Your task to perform on an android device: open the mobile data screen to see how much data has been used Image 0: 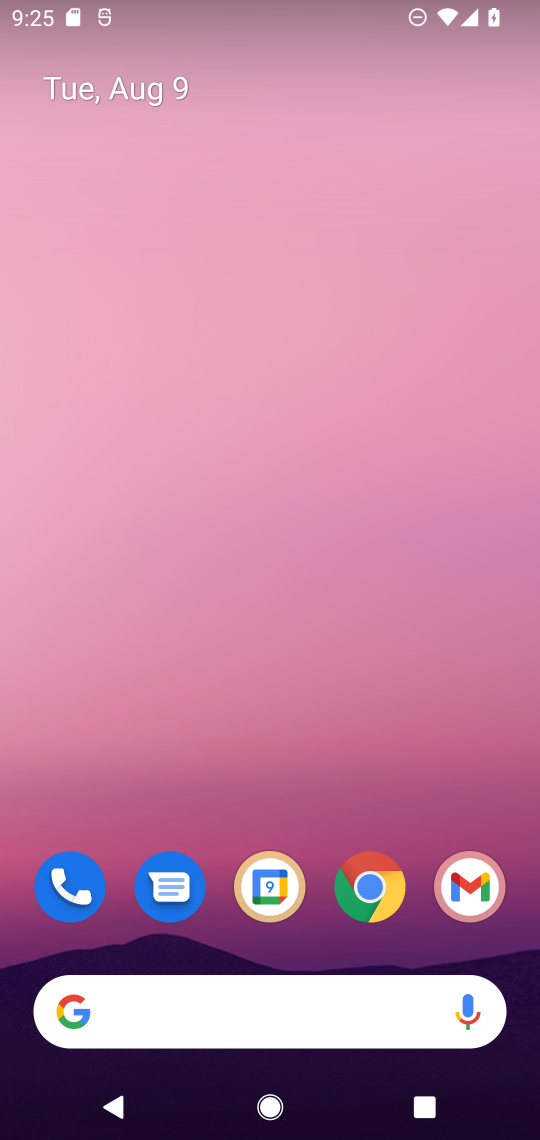
Step 0: drag from (262, 792) to (240, 203)
Your task to perform on an android device: open the mobile data screen to see how much data has been used Image 1: 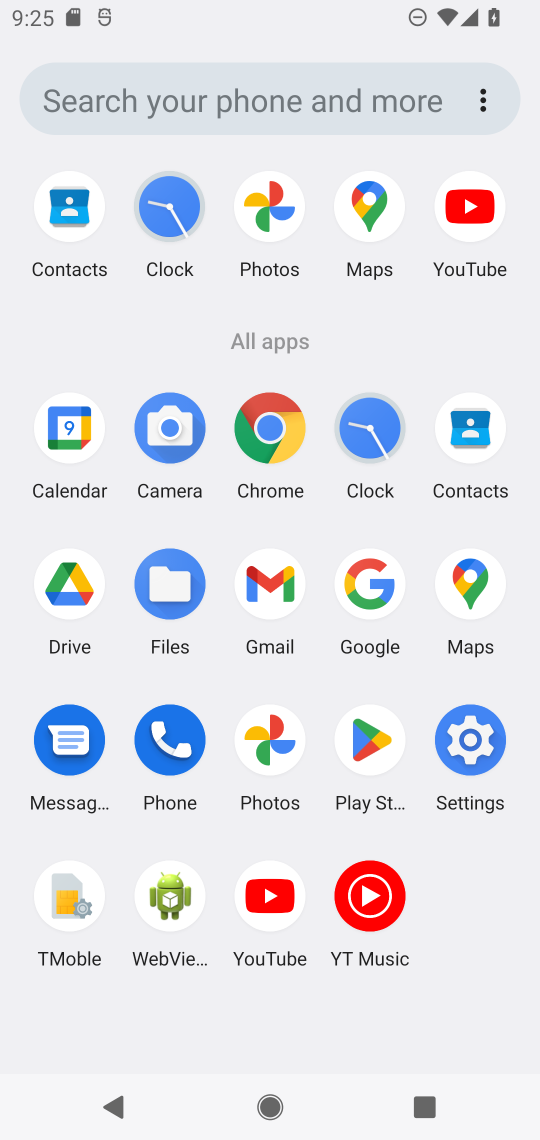
Step 1: click (455, 731)
Your task to perform on an android device: open the mobile data screen to see how much data has been used Image 2: 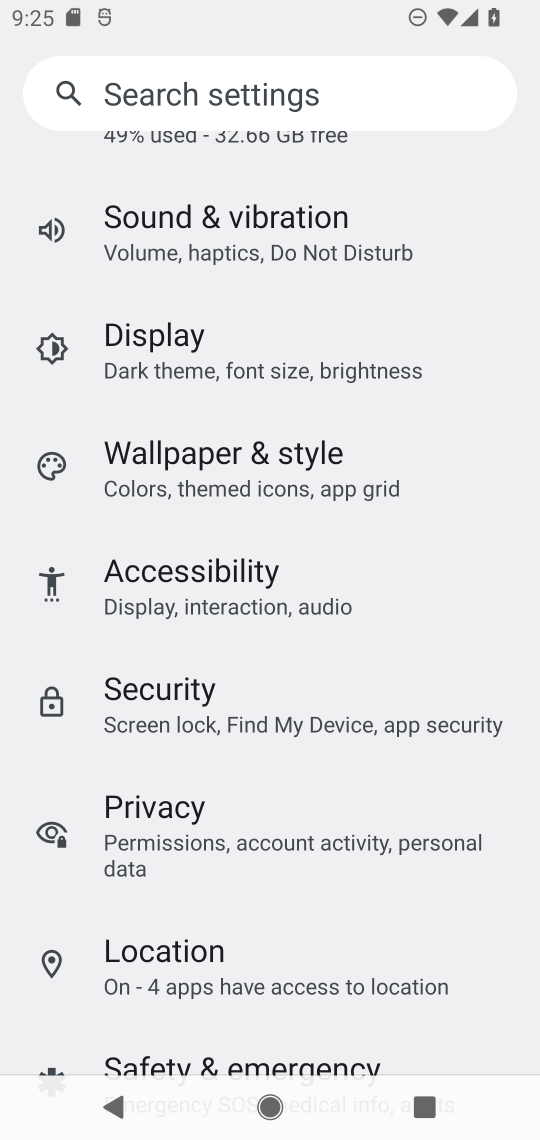
Step 2: drag from (244, 354) to (314, 878)
Your task to perform on an android device: open the mobile data screen to see how much data has been used Image 3: 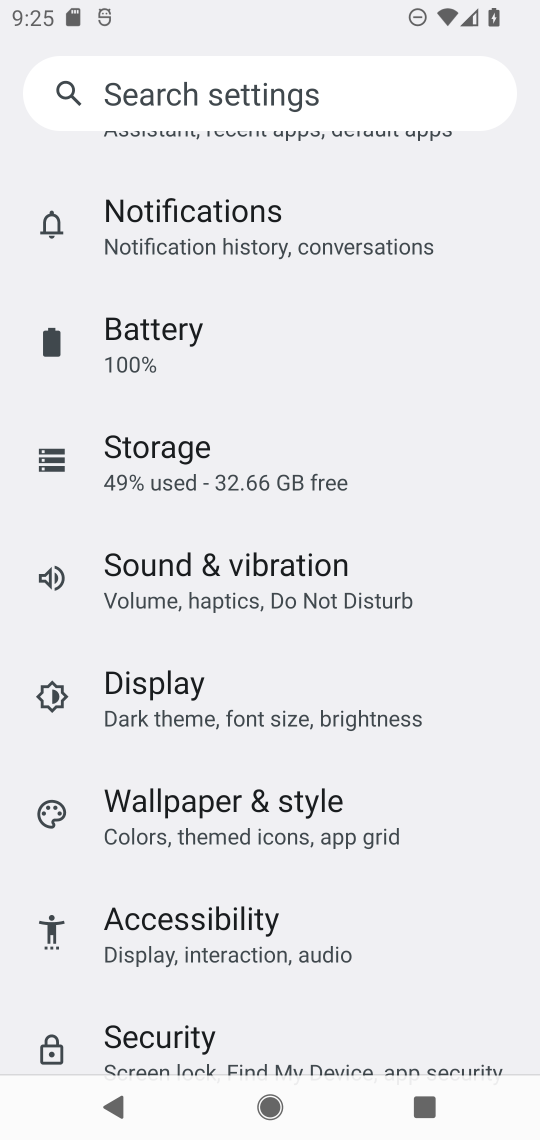
Step 3: drag from (259, 312) to (376, 829)
Your task to perform on an android device: open the mobile data screen to see how much data has been used Image 4: 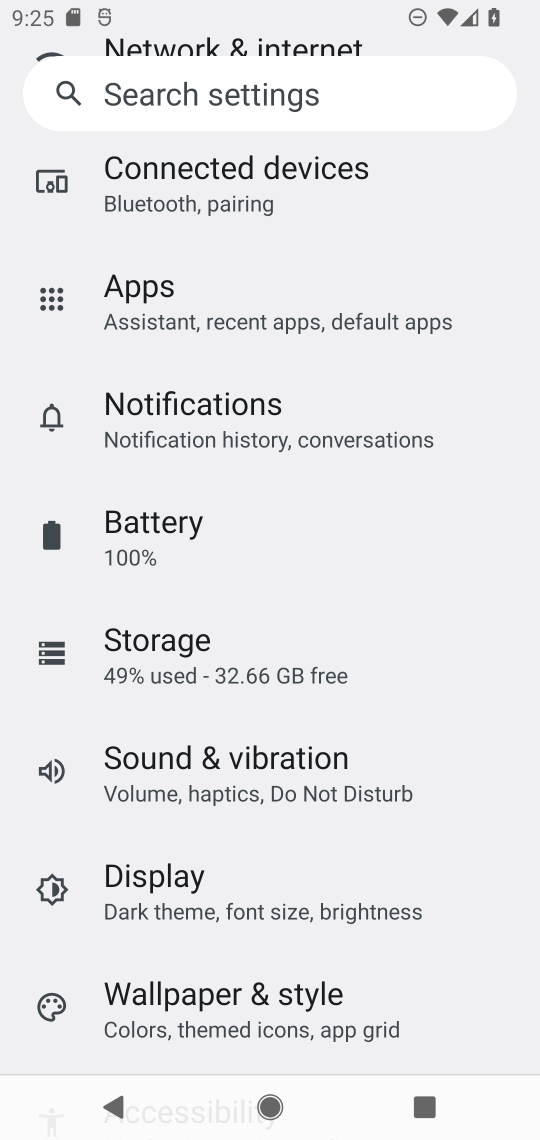
Step 4: drag from (239, 325) to (237, 824)
Your task to perform on an android device: open the mobile data screen to see how much data has been used Image 5: 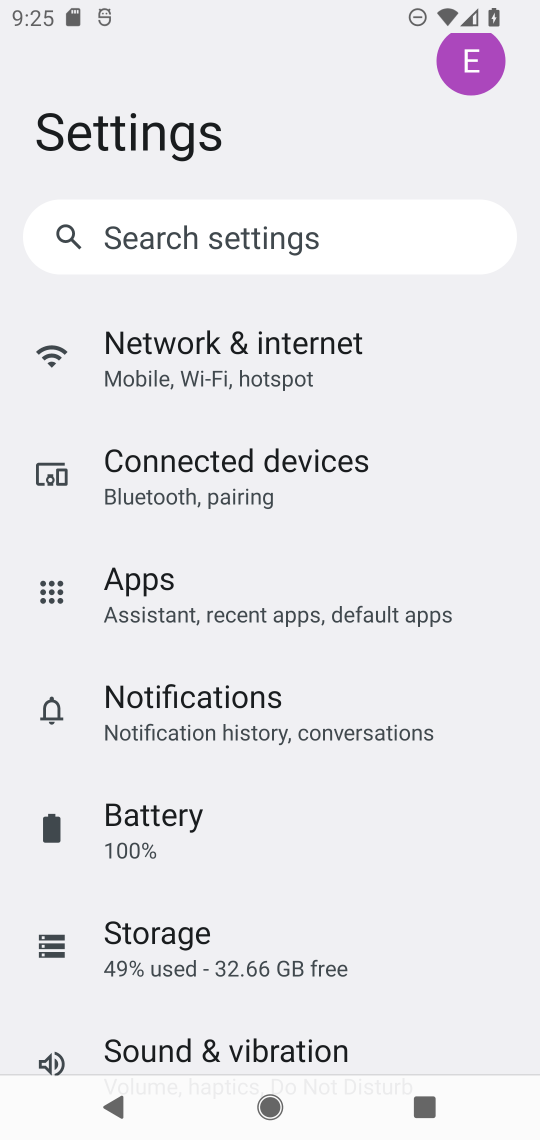
Step 5: click (341, 338)
Your task to perform on an android device: open the mobile data screen to see how much data has been used Image 6: 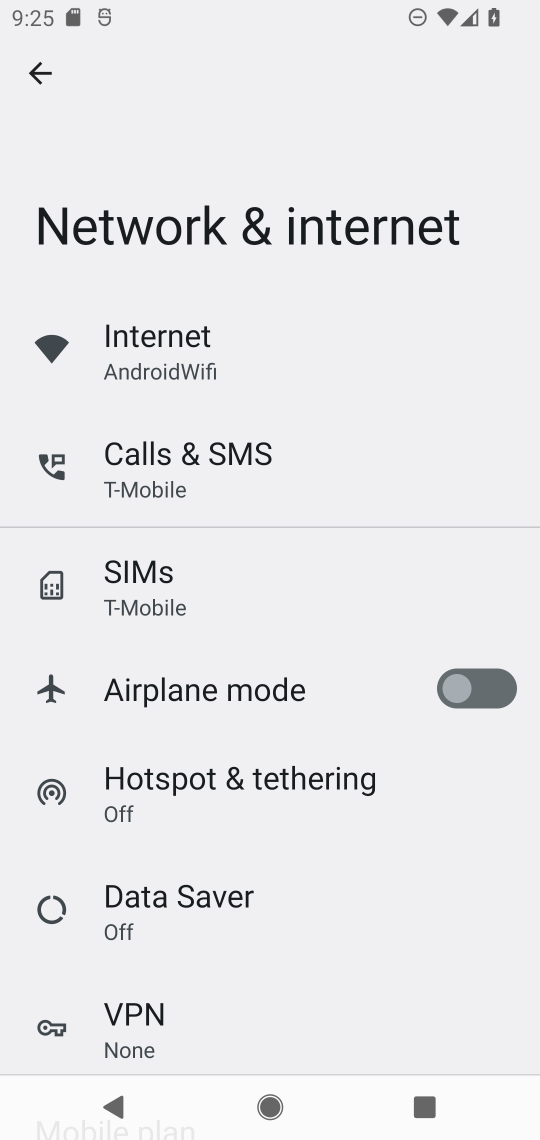
Step 6: click (210, 372)
Your task to perform on an android device: open the mobile data screen to see how much data has been used Image 7: 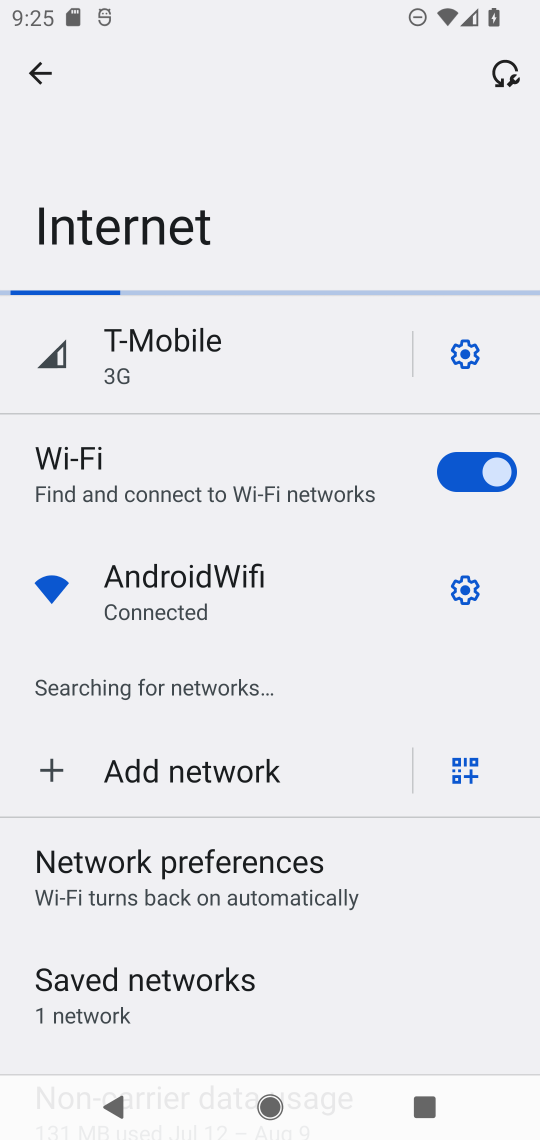
Step 7: drag from (314, 883) to (294, 515)
Your task to perform on an android device: open the mobile data screen to see how much data has been used Image 8: 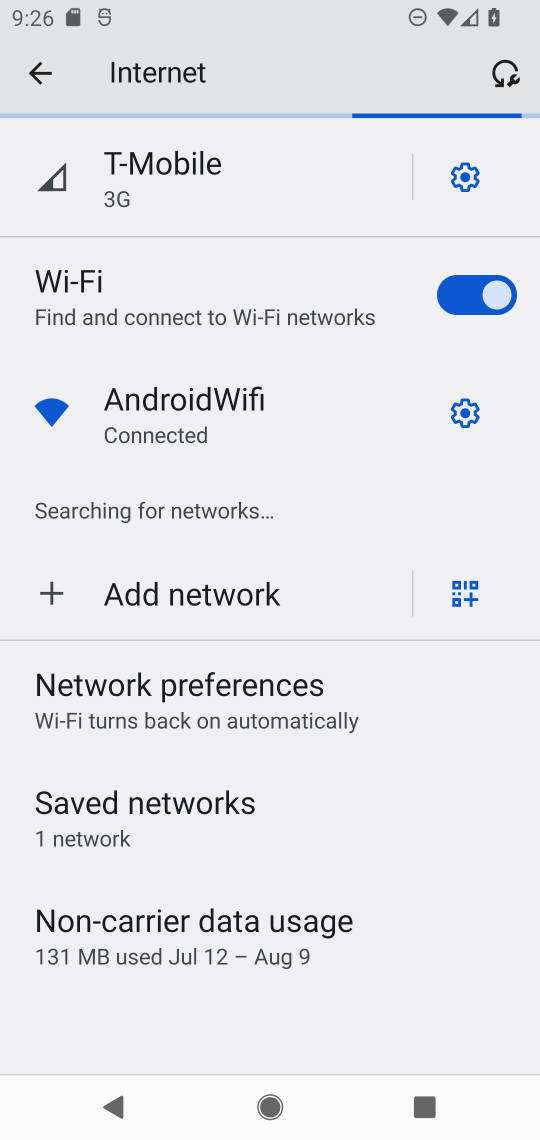
Step 8: drag from (258, 773) to (258, 387)
Your task to perform on an android device: open the mobile data screen to see how much data has been used Image 9: 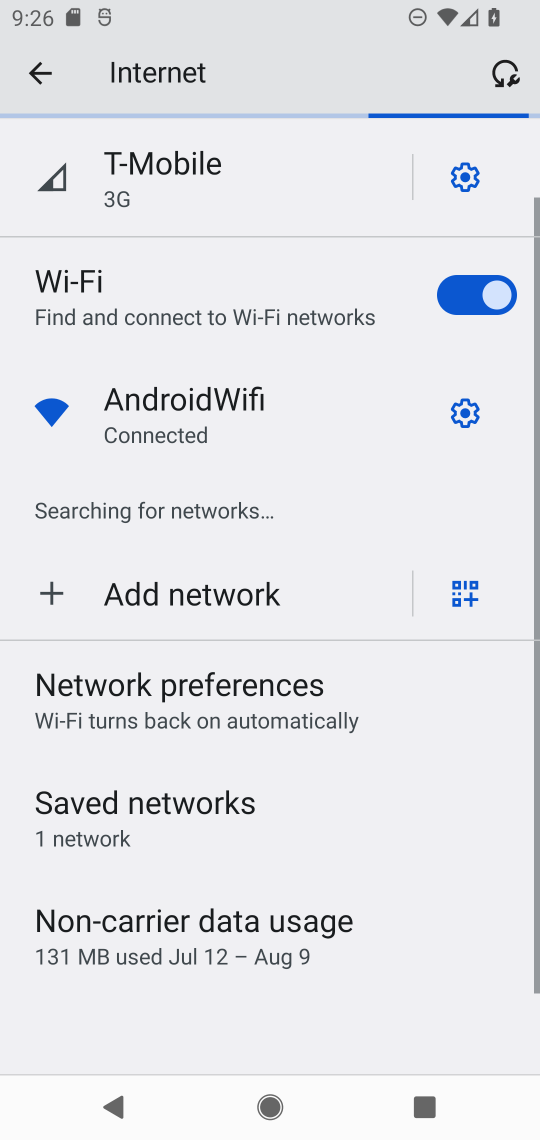
Step 9: click (264, 927)
Your task to perform on an android device: open the mobile data screen to see how much data has been used Image 10: 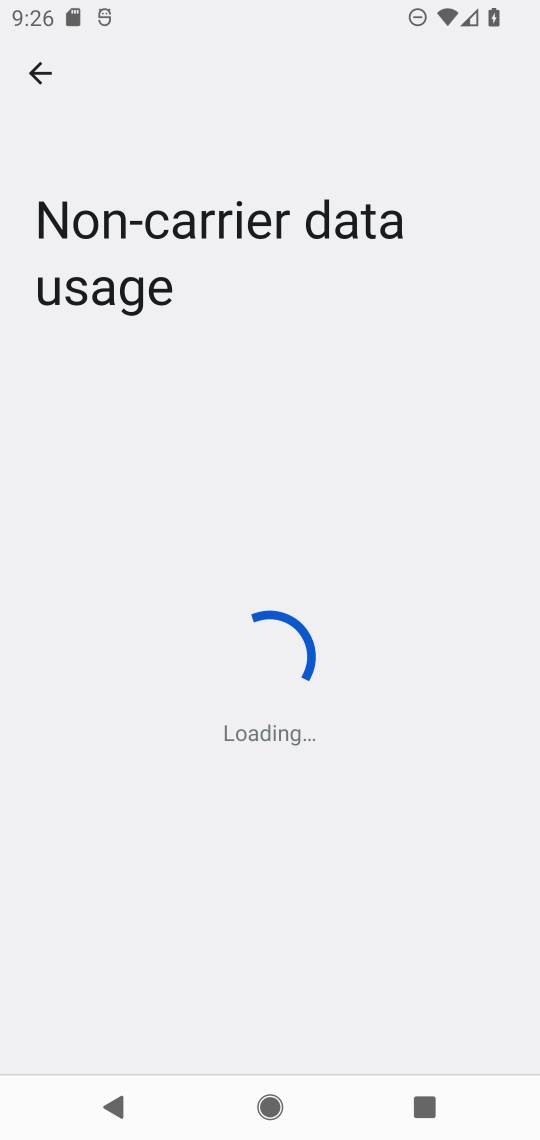
Step 10: task complete